Your task to perform on an android device: empty trash in google photos Image 0: 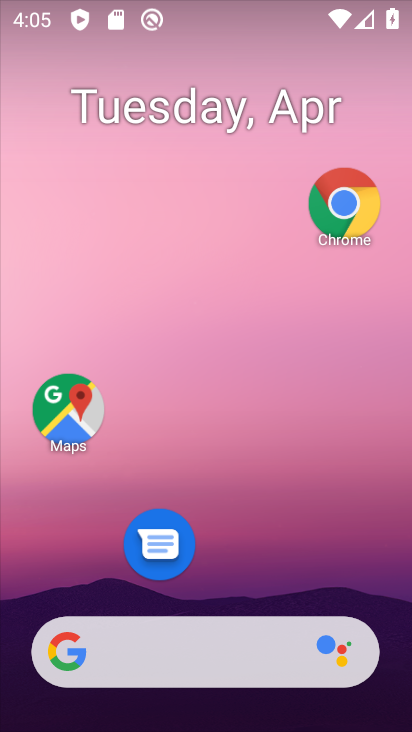
Step 0: drag from (262, 566) to (409, 181)
Your task to perform on an android device: empty trash in google photos Image 1: 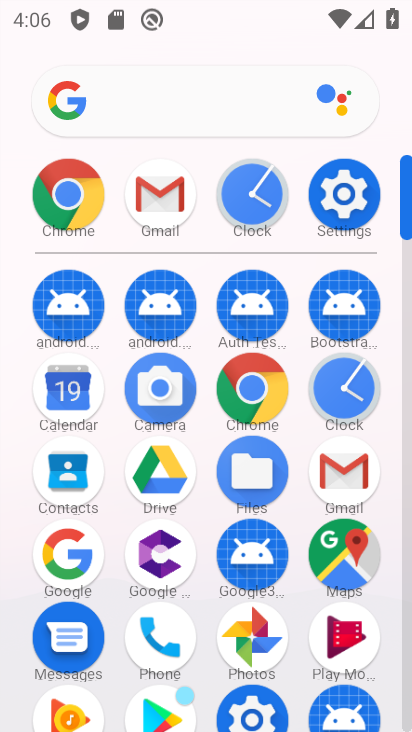
Step 1: click (237, 636)
Your task to perform on an android device: empty trash in google photos Image 2: 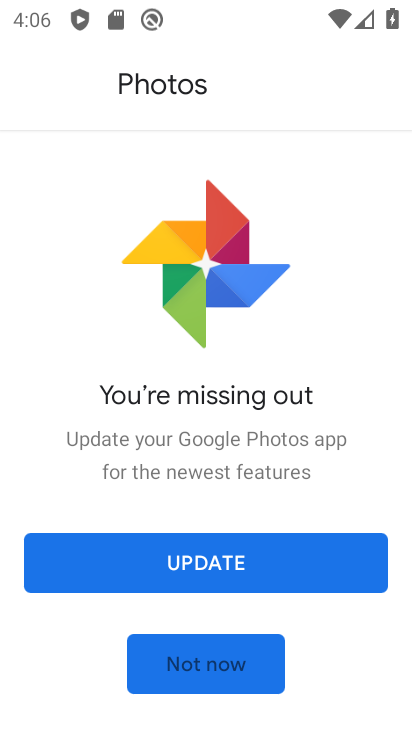
Step 2: click (210, 672)
Your task to perform on an android device: empty trash in google photos Image 3: 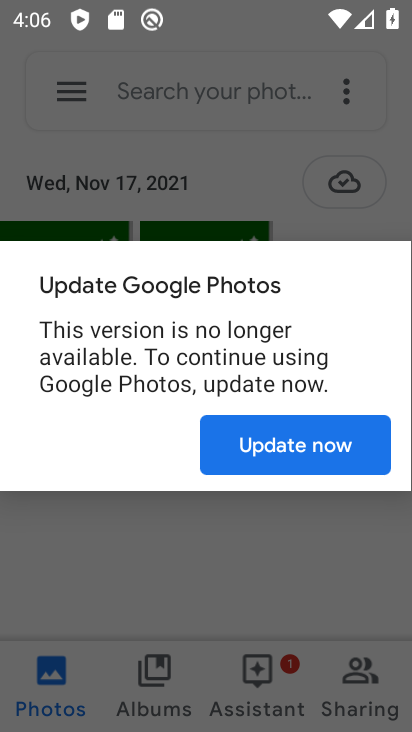
Step 3: click (299, 450)
Your task to perform on an android device: empty trash in google photos Image 4: 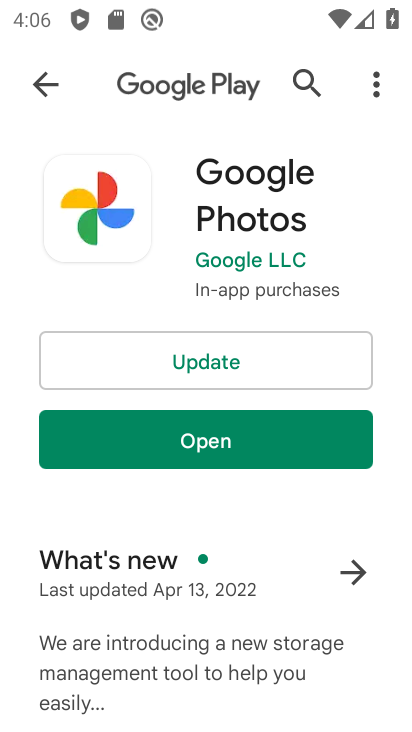
Step 4: click (209, 437)
Your task to perform on an android device: empty trash in google photos Image 5: 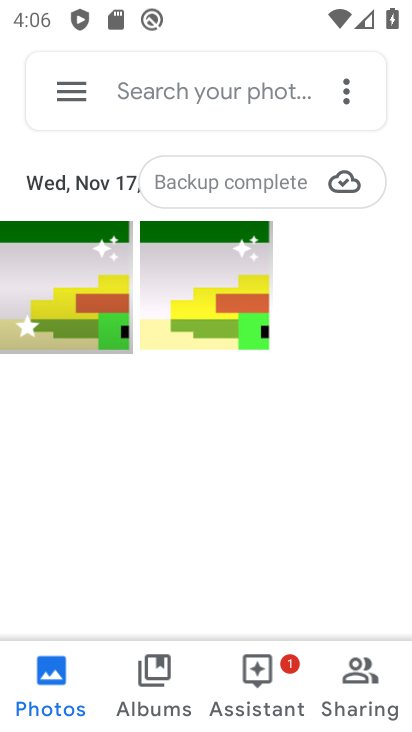
Step 5: click (54, 94)
Your task to perform on an android device: empty trash in google photos Image 6: 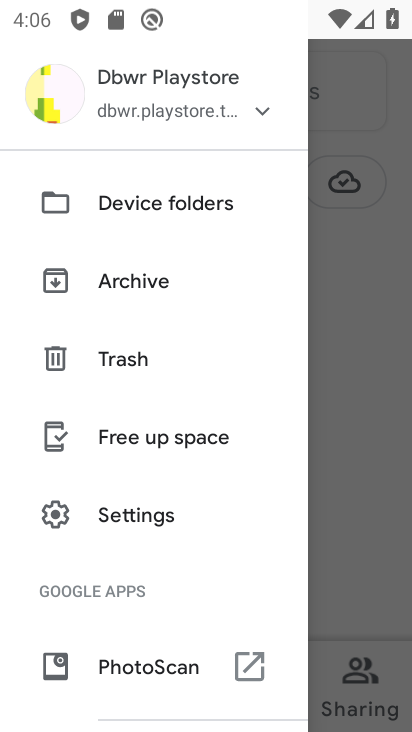
Step 6: click (117, 335)
Your task to perform on an android device: empty trash in google photos Image 7: 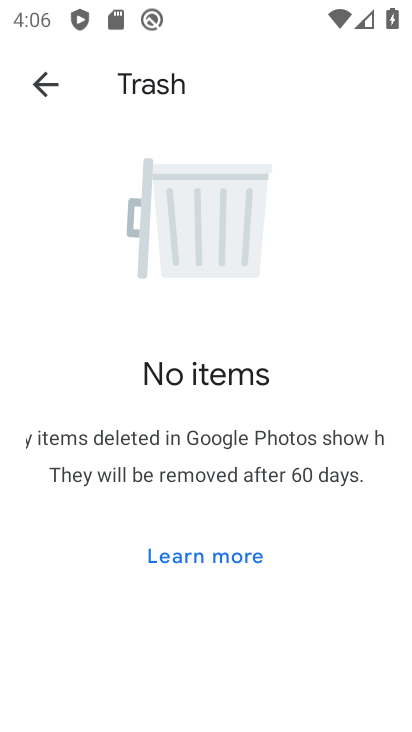
Step 7: task complete